Your task to perform on an android device: change the upload size in google photos Image 0: 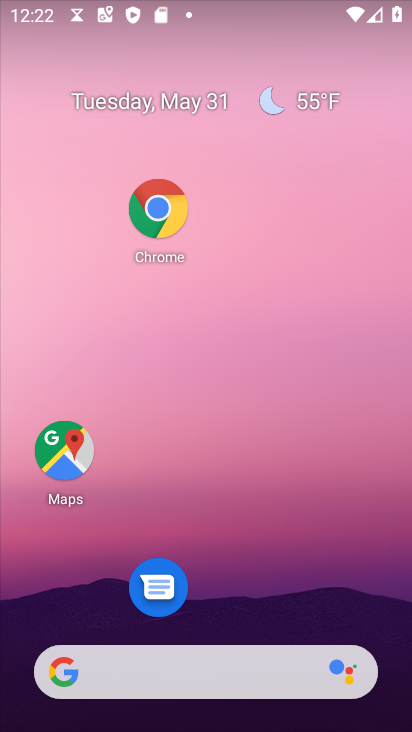
Step 0: drag from (251, 569) to (223, 227)
Your task to perform on an android device: change the upload size in google photos Image 1: 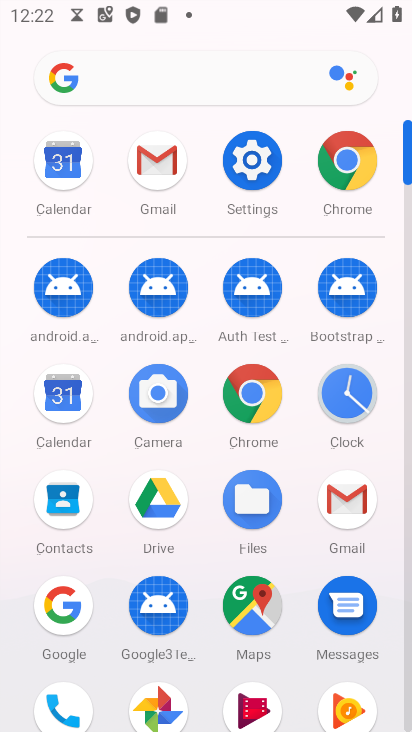
Step 1: click (163, 707)
Your task to perform on an android device: change the upload size in google photos Image 2: 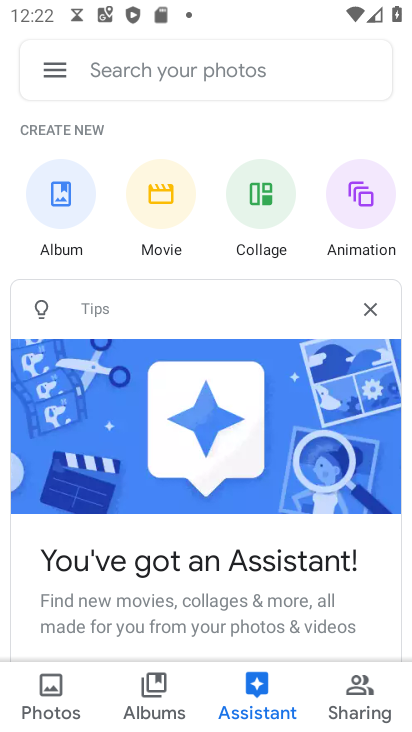
Step 2: click (52, 69)
Your task to perform on an android device: change the upload size in google photos Image 3: 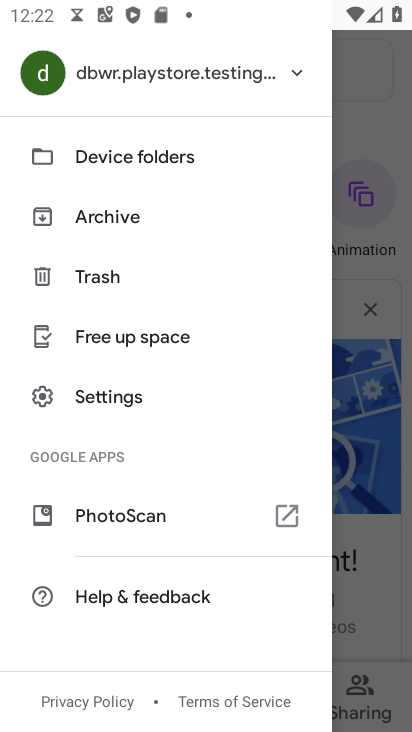
Step 3: click (90, 391)
Your task to perform on an android device: change the upload size in google photos Image 4: 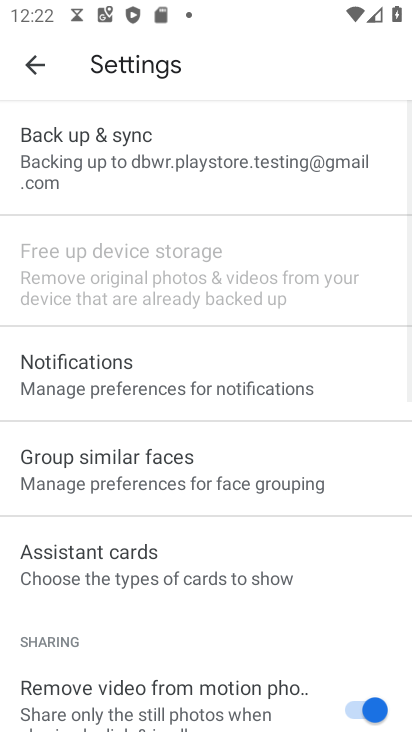
Step 4: click (102, 169)
Your task to perform on an android device: change the upload size in google photos Image 5: 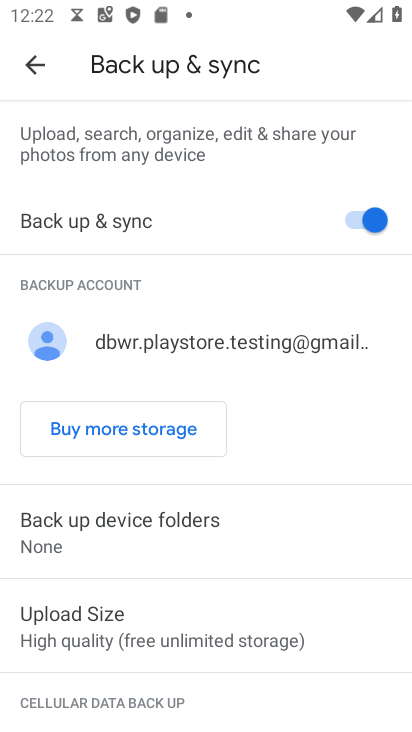
Step 5: click (110, 628)
Your task to perform on an android device: change the upload size in google photos Image 6: 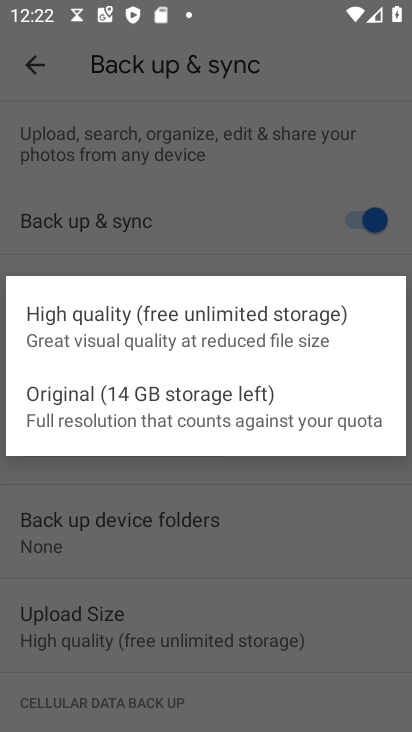
Step 6: click (164, 415)
Your task to perform on an android device: change the upload size in google photos Image 7: 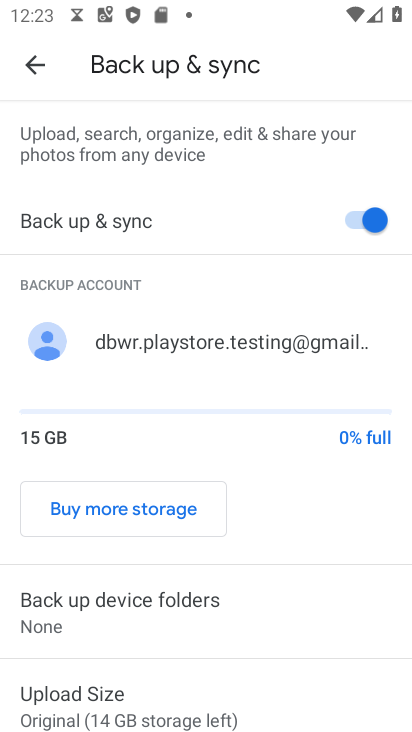
Step 7: task complete